Your task to perform on an android device: change notification settings in the gmail app Image 0: 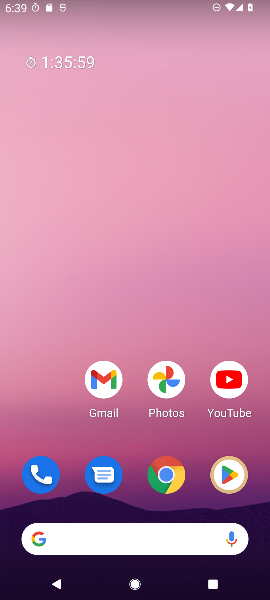
Step 0: press home button
Your task to perform on an android device: change notification settings in the gmail app Image 1: 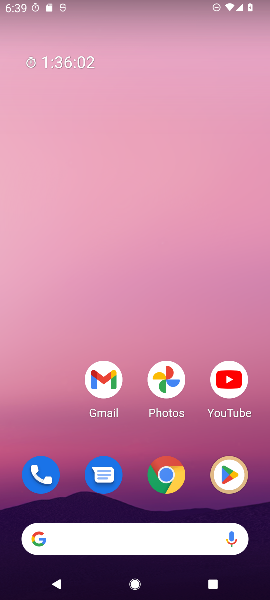
Step 1: drag from (55, 430) to (50, 194)
Your task to perform on an android device: change notification settings in the gmail app Image 2: 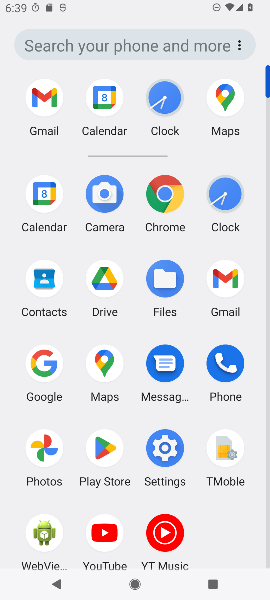
Step 2: click (229, 273)
Your task to perform on an android device: change notification settings in the gmail app Image 3: 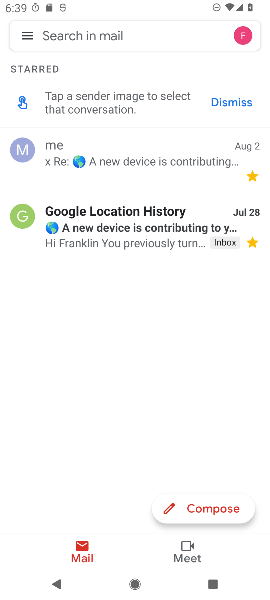
Step 3: click (25, 33)
Your task to perform on an android device: change notification settings in the gmail app Image 4: 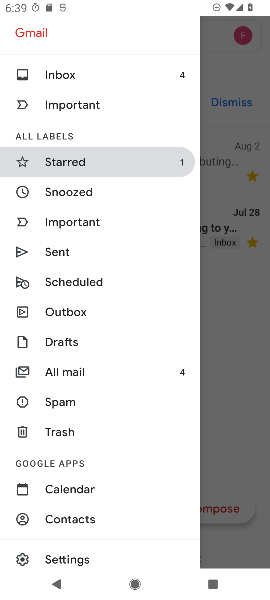
Step 4: drag from (150, 329) to (150, 227)
Your task to perform on an android device: change notification settings in the gmail app Image 5: 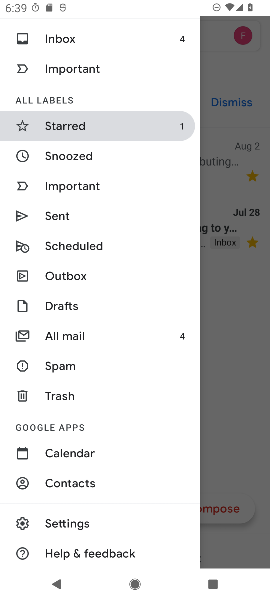
Step 5: drag from (129, 360) to (139, 251)
Your task to perform on an android device: change notification settings in the gmail app Image 6: 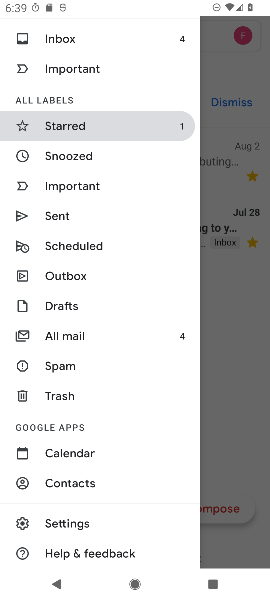
Step 6: click (73, 521)
Your task to perform on an android device: change notification settings in the gmail app Image 7: 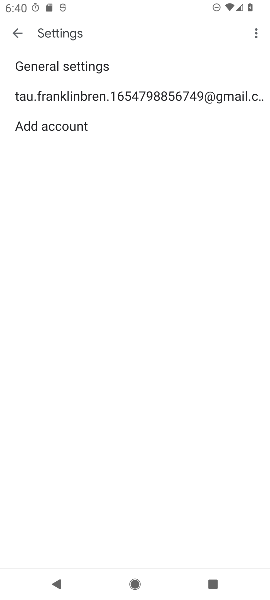
Step 7: click (136, 95)
Your task to perform on an android device: change notification settings in the gmail app Image 8: 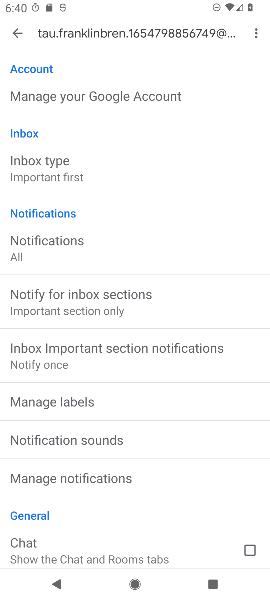
Step 8: drag from (187, 482) to (193, 368)
Your task to perform on an android device: change notification settings in the gmail app Image 9: 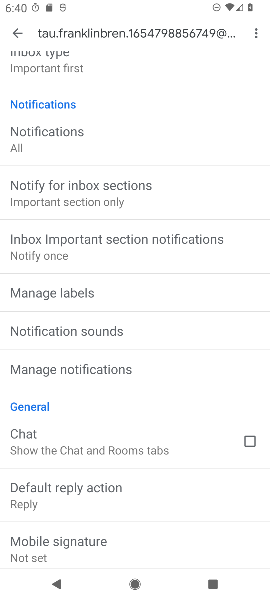
Step 9: drag from (185, 507) to (187, 387)
Your task to perform on an android device: change notification settings in the gmail app Image 10: 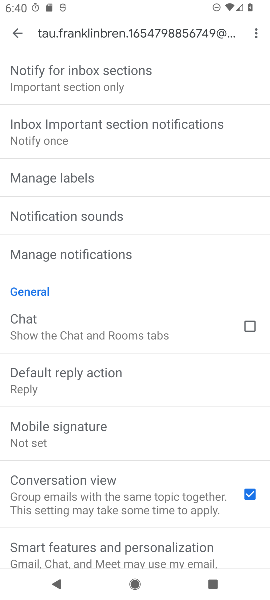
Step 10: drag from (175, 491) to (182, 377)
Your task to perform on an android device: change notification settings in the gmail app Image 11: 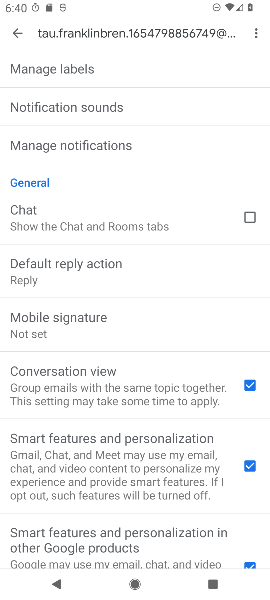
Step 11: drag from (166, 456) to (172, 328)
Your task to perform on an android device: change notification settings in the gmail app Image 12: 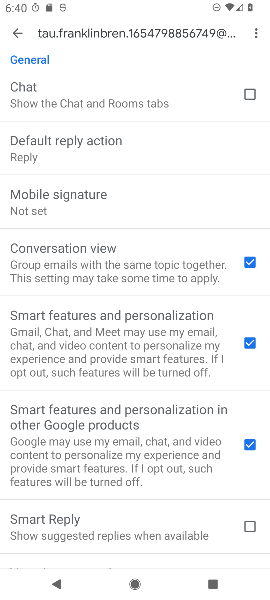
Step 12: drag from (148, 454) to (149, 344)
Your task to perform on an android device: change notification settings in the gmail app Image 13: 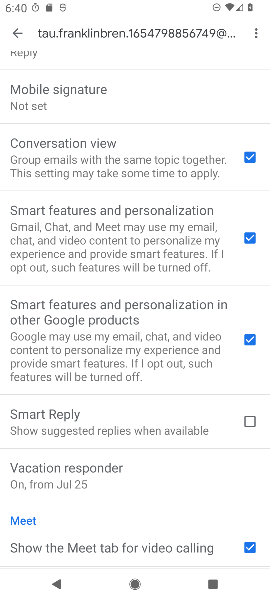
Step 13: drag from (171, 477) to (170, 352)
Your task to perform on an android device: change notification settings in the gmail app Image 14: 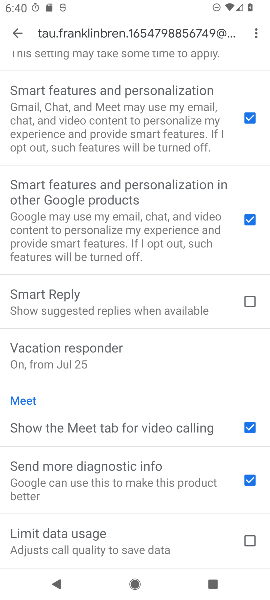
Step 14: drag from (172, 483) to (181, 372)
Your task to perform on an android device: change notification settings in the gmail app Image 15: 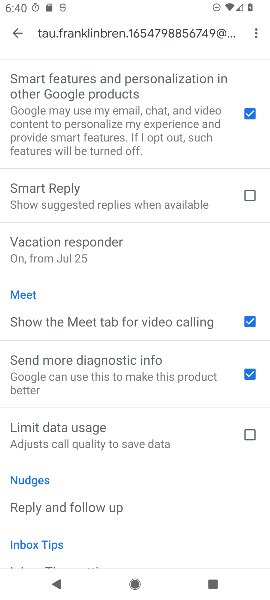
Step 15: drag from (187, 476) to (192, 357)
Your task to perform on an android device: change notification settings in the gmail app Image 16: 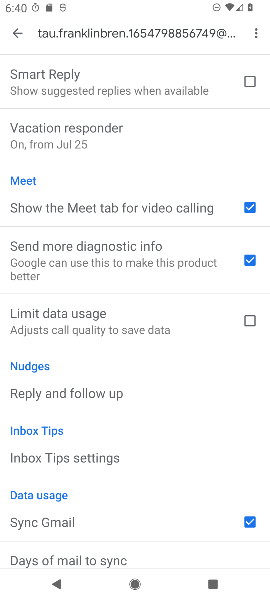
Step 16: drag from (167, 477) to (169, 371)
Your task to perform on an android device: change notification settings in the gmail app Image 17: 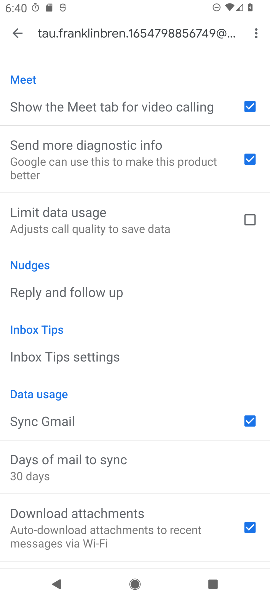
Step 17: drag from (181, 251) to (187, 434)
Your task to perform on an android device: change notification settings in the gmail app Image 18: 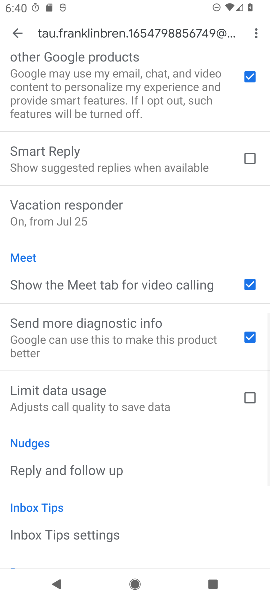
Step 18: drag from (194, 233) to (199, 336)
Your task to perform on an android device: change notification settings in the gmail app Image 19: 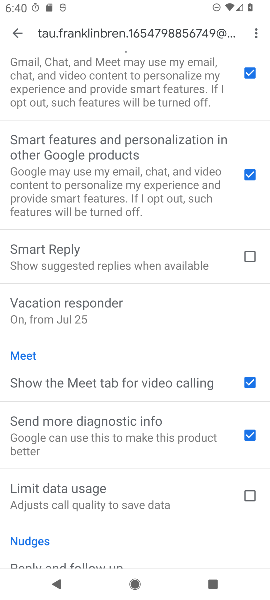
Step 19: drag from (173, 201) to (194, 408)
Your task to perform on an android device: change notification settings in the gmail app Image 20: 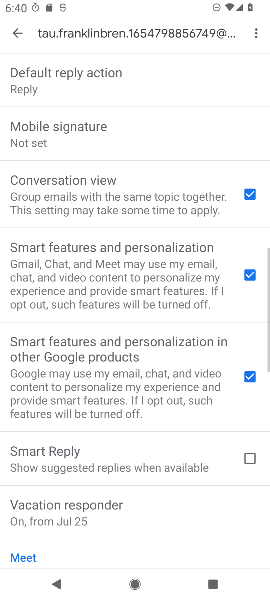
Step 20: drag from (193, 202) to (197, 385)
Your task to perform on an android device: change notification settings in the gmail app Image 21: 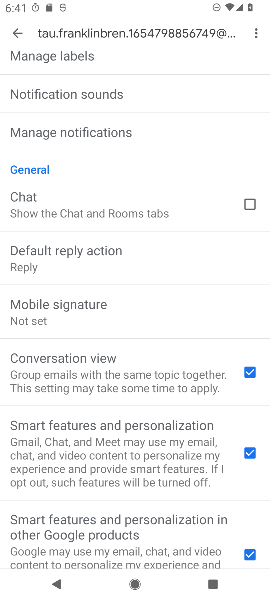
Step 21: drag from (197, 275) to (196, 369)
Your task to perform on an android device: change notification settings in the gmail app Image 22: 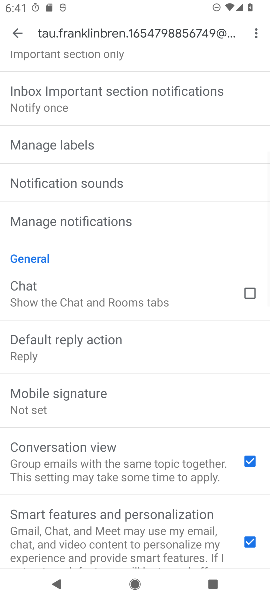
Step 22: drag from (185, 210) to (200, 390)
Your task to perform on an android device: change notification settings in the gmail app Image 23: 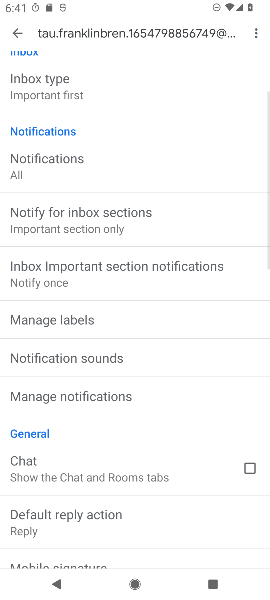
Step 23: drag from (213, 172) to (208, 345)
Your task to perform on an android device: change notification settings in the gmail app Image 24: 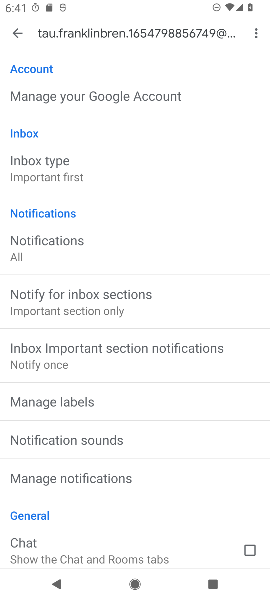
Step 24: click (116, 478)
Your task to perform on an android device: change notification settings in the gmail app Image 25: 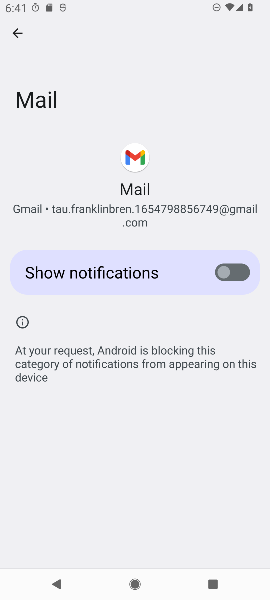
Step 25: click (228, 270)
Your task to perform on an android device: change notification settings in the gmail app Image 26: 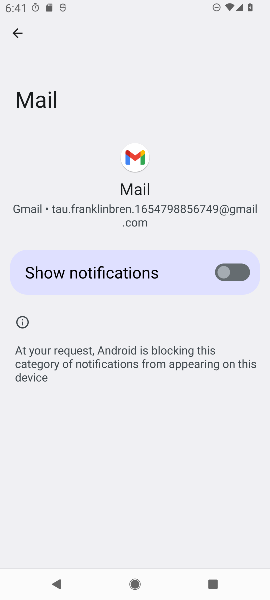
Step 26: task complete